Your task to perform on an android device: Do I have any events this weekend? Image 0: 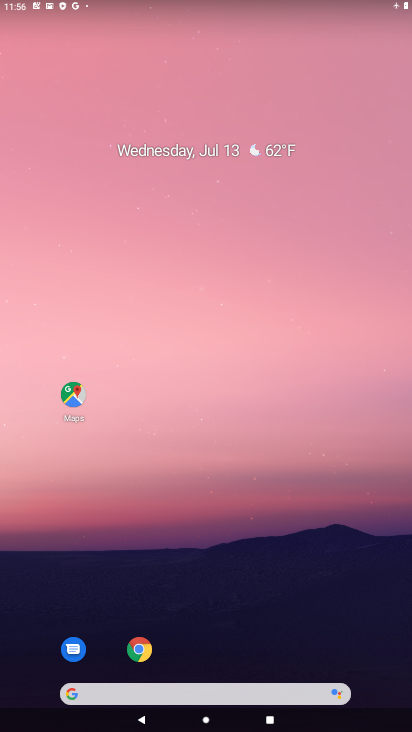
Step 0: drag from (366, 671) to (236, 9)
Your task to perform on an android device: Do I have any events this weekend? Image 1: 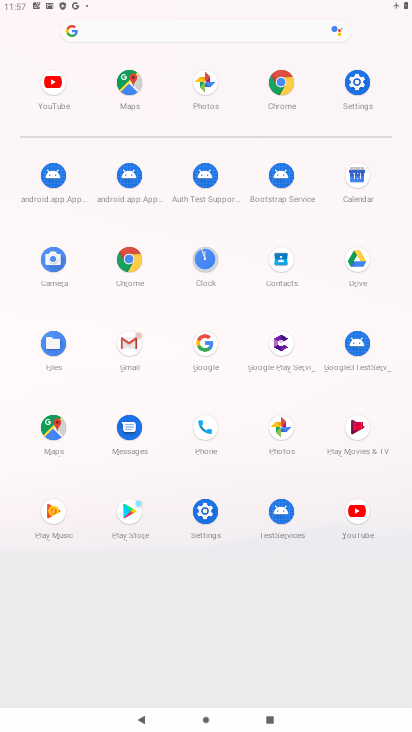
Step 1: click (366, 188)
Your task to perform on an android device: Do I have any events this weekend? Image 2: 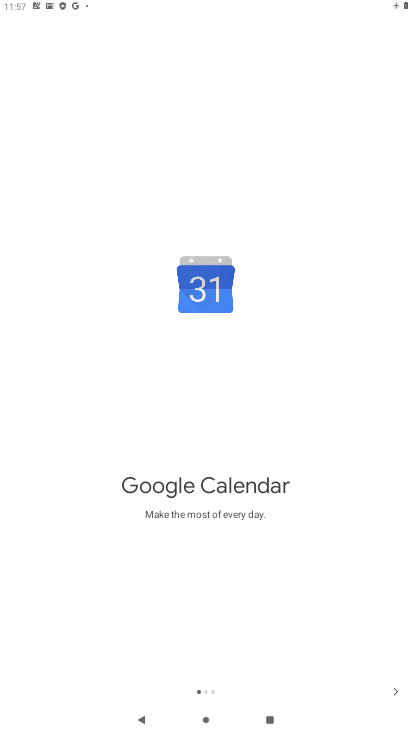
Step 2: click (390, 694)
Your task to perform on an android device: Do I have any events this weekend? Image 3: 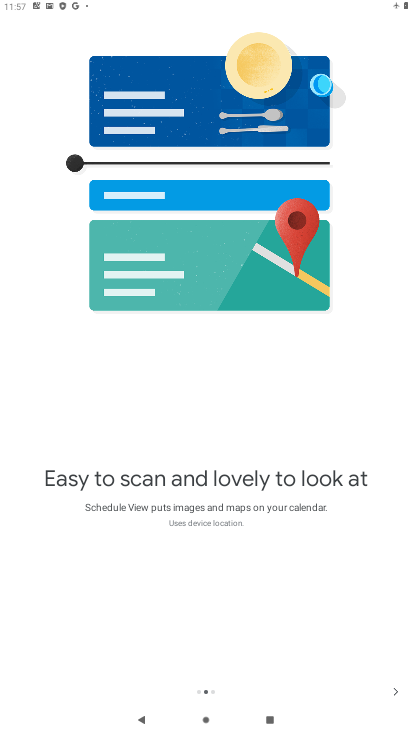
Step 3: click (391, 693)
Your task to perform on an android device: Do I have any events this weekend? Image 4: 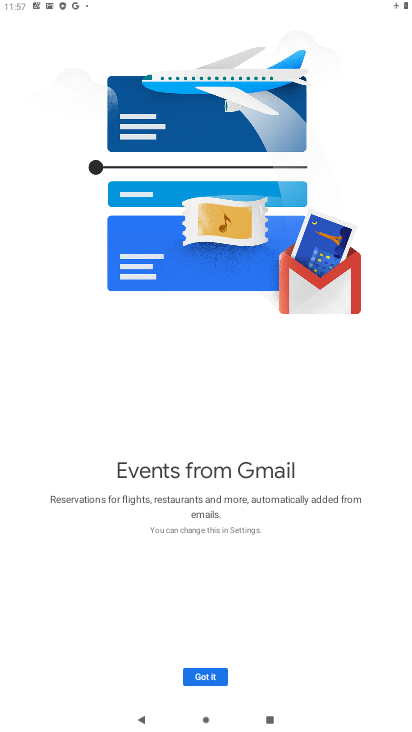
Step 4: click (202, 679)
Your task to perform on an android device: Do I have any events this weekend? Image 5: 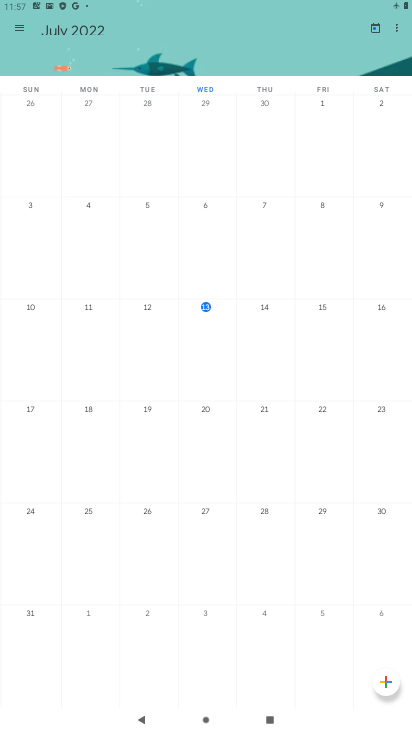
Step 5: task complete